Your task to perform on an android device: Play the last video I watched on Youtube Image 0: 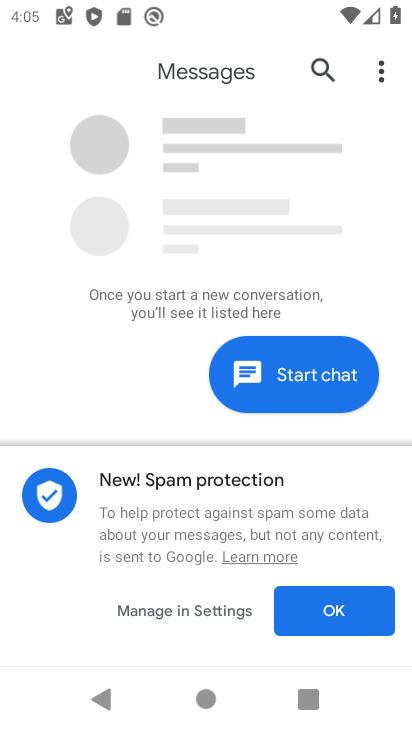
Step 0: press home button
Your task to perform on an android device: Play the last video I watched on Youtube Image 1: 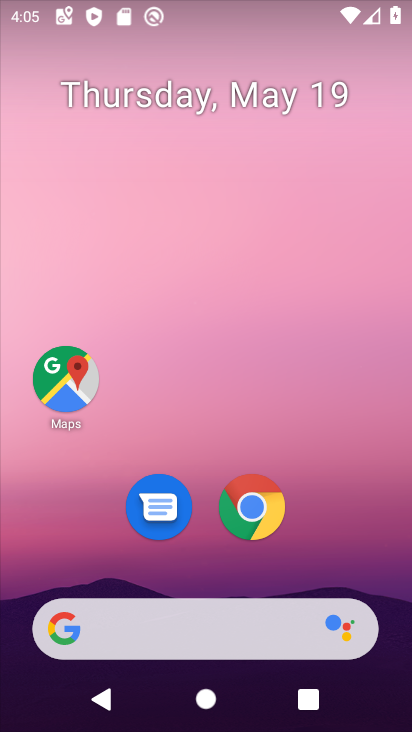
Step 1: drag from (403, 657) to (410, 105)
Your task to perform on an android device: Play the last video I watched on Youtube Image 2: 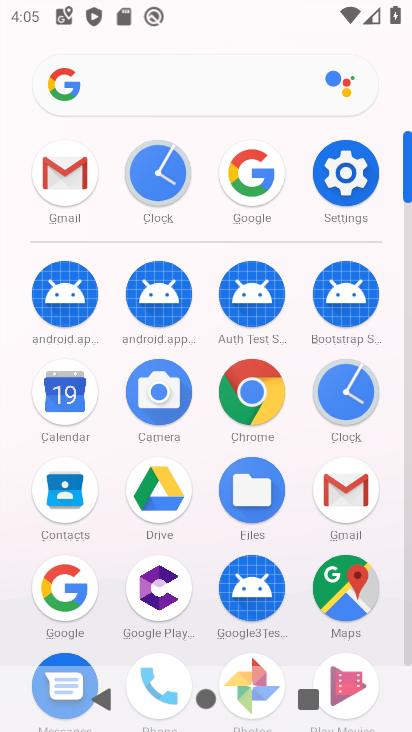
Step 2: drag from (304, 629) to (314, 321)
Your task to perform on an android device: Play the last video I watched on Youtube Image 3: 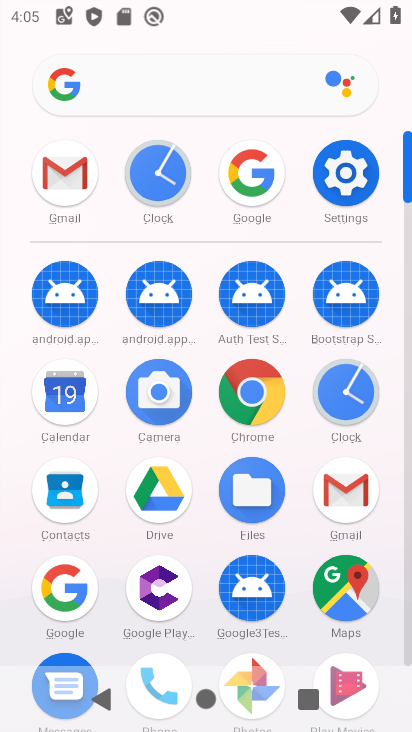
Step 3: drag from (300, 628) to (290, 328)
Your task to perform on an android device: Play the last video I watched on Youtube Image 4: 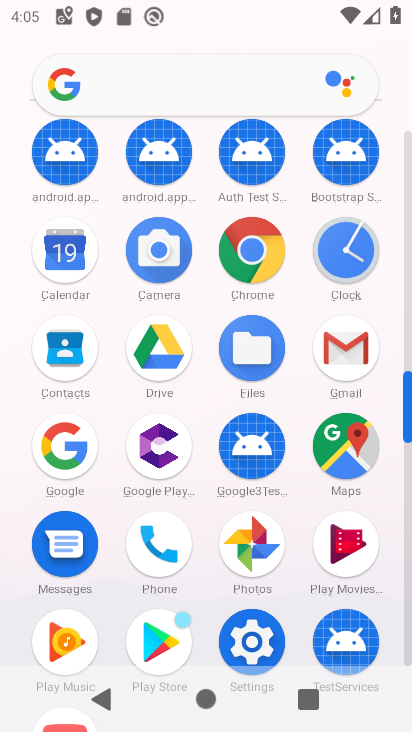
Step 4: drag from (208, 533) to (229, 344)
Your task to perform on an android device: Play the last video I watched on Youtube Image 5: 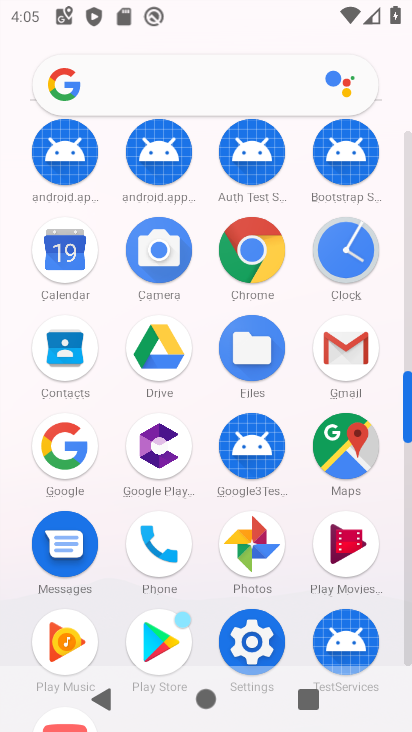
Step 5: drag from (202, 598) to (233, 381)
Your task to perform on an android device: Play the last video I watched on Youtube Image 6: 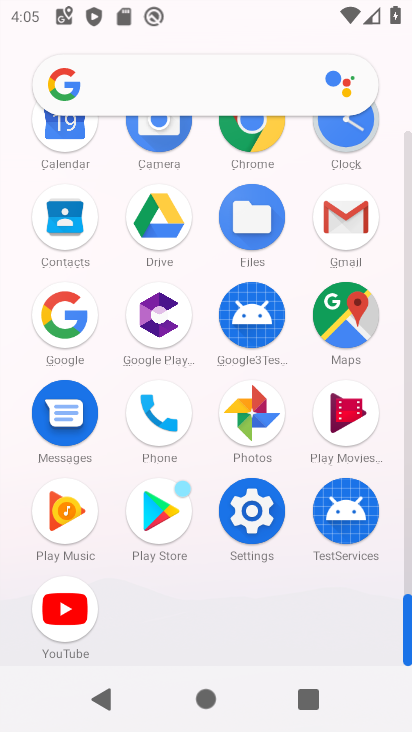
Step 6: click (61, 600)
Your task to perform on an android device: Play the last video I watched on Youtube Image 7: 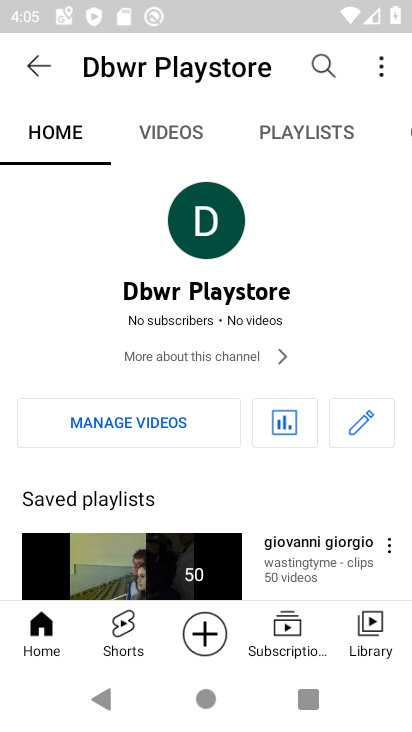
Step 7: click (357, 635)
Your task to perform on an android device: Play the last video I watched on Youtube Image 8: 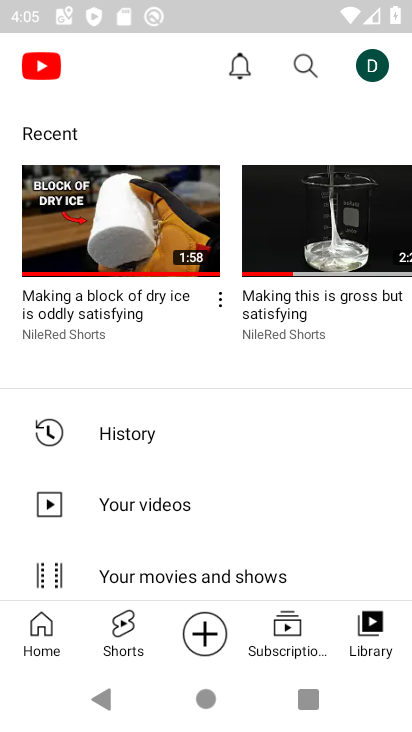
Step 8: click (146, 221)
Your task to perform on an android device: Play the last video I watched on Youtube Image 9: 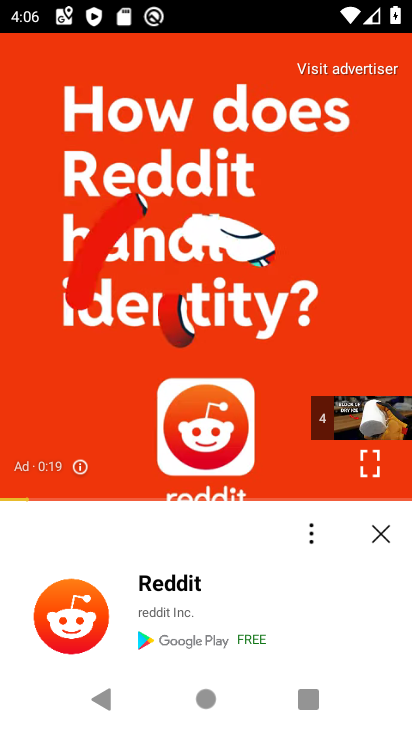
Step 9: task complete